Your task to perform on an android device: install app "Facebook Lite" Image 0: 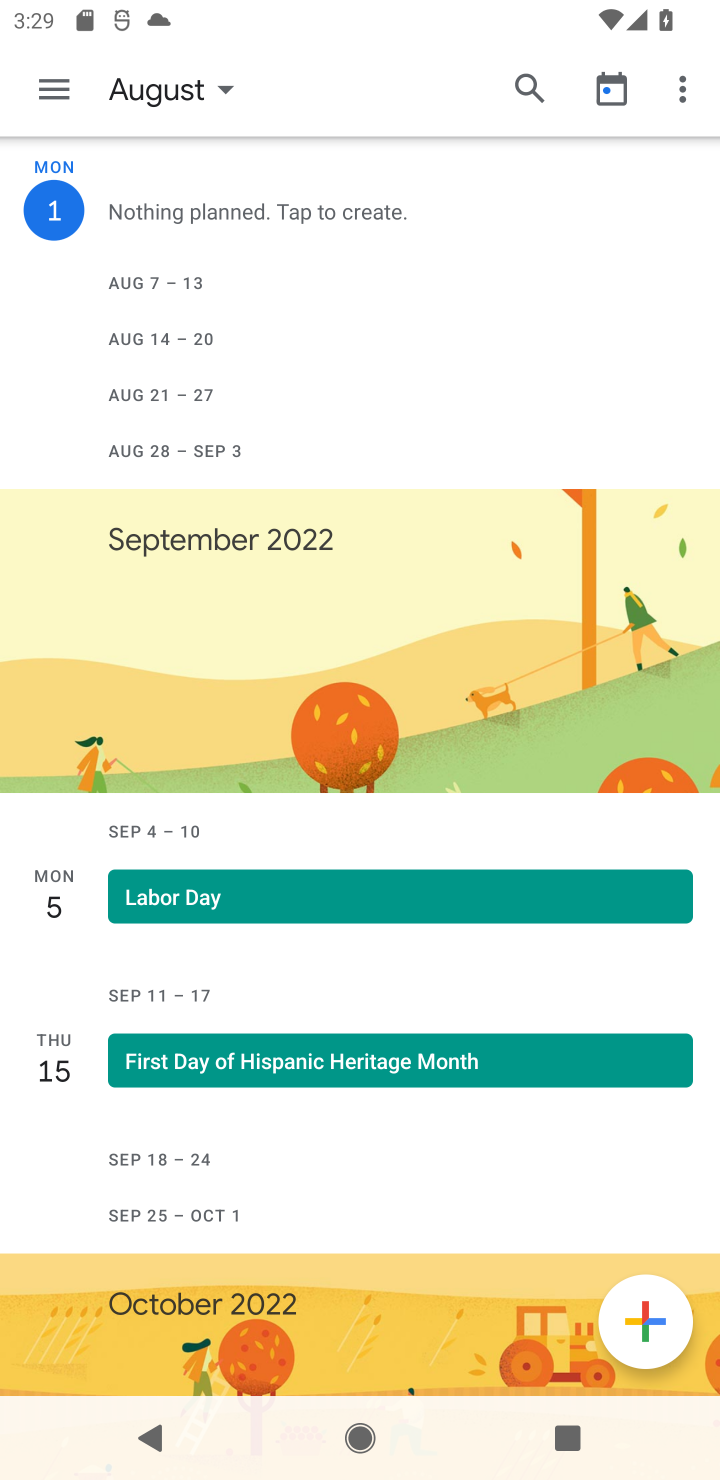
Step 0: press home button
Your task to perform on an android device: install app "Facebook Lite" Image 1: 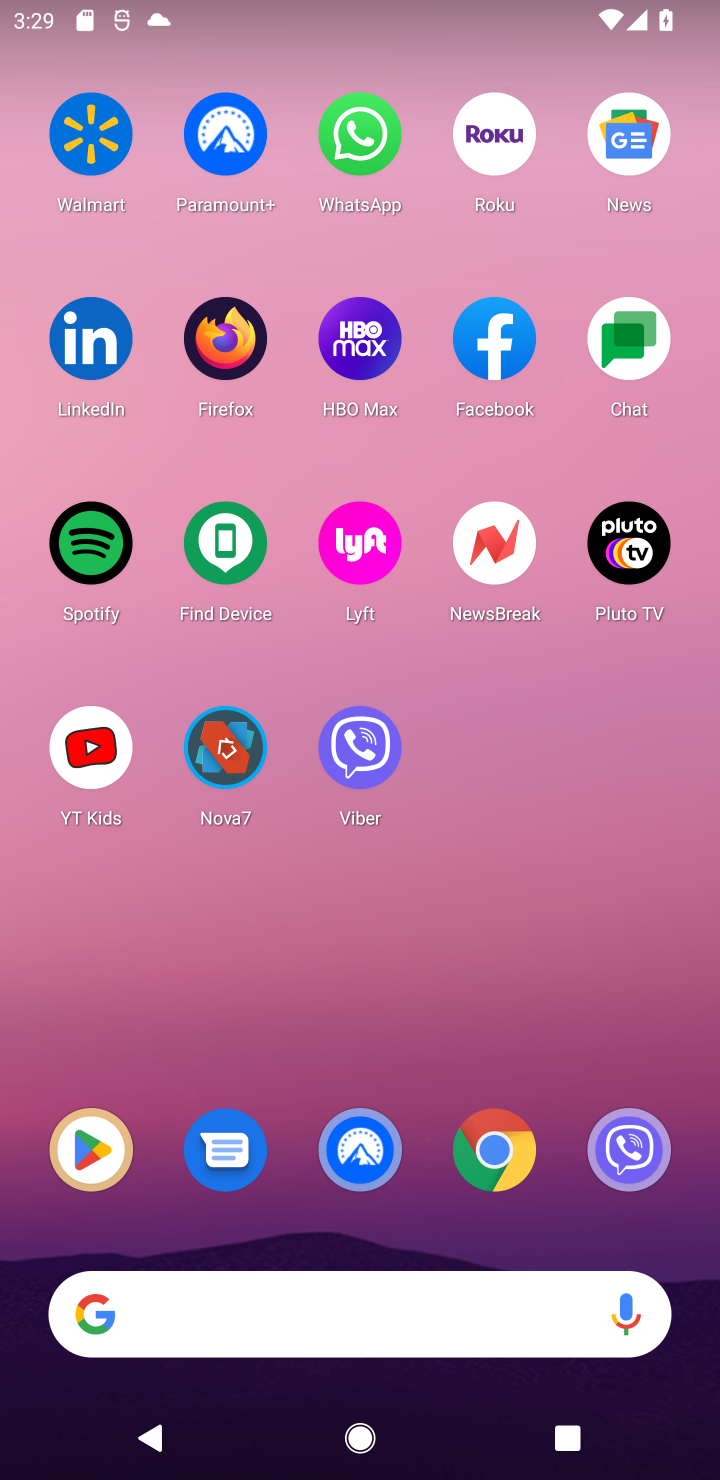
Step 1: click (97, 1158)
Your task to perform on an android device: install app "Facebook Lite" Image 2: 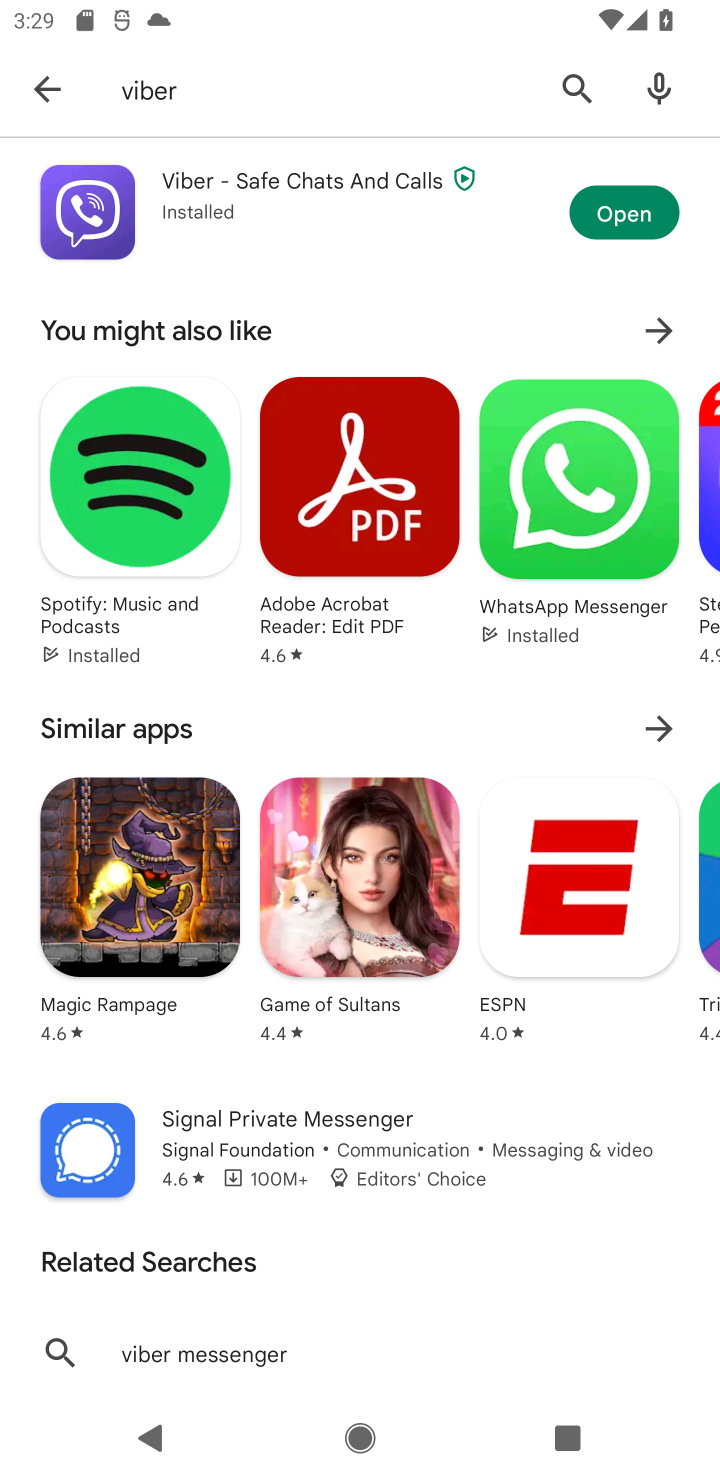
Step 2: click (563, 99)
Your task to perform on an android device: install app "Facebook Lite" Image 3: 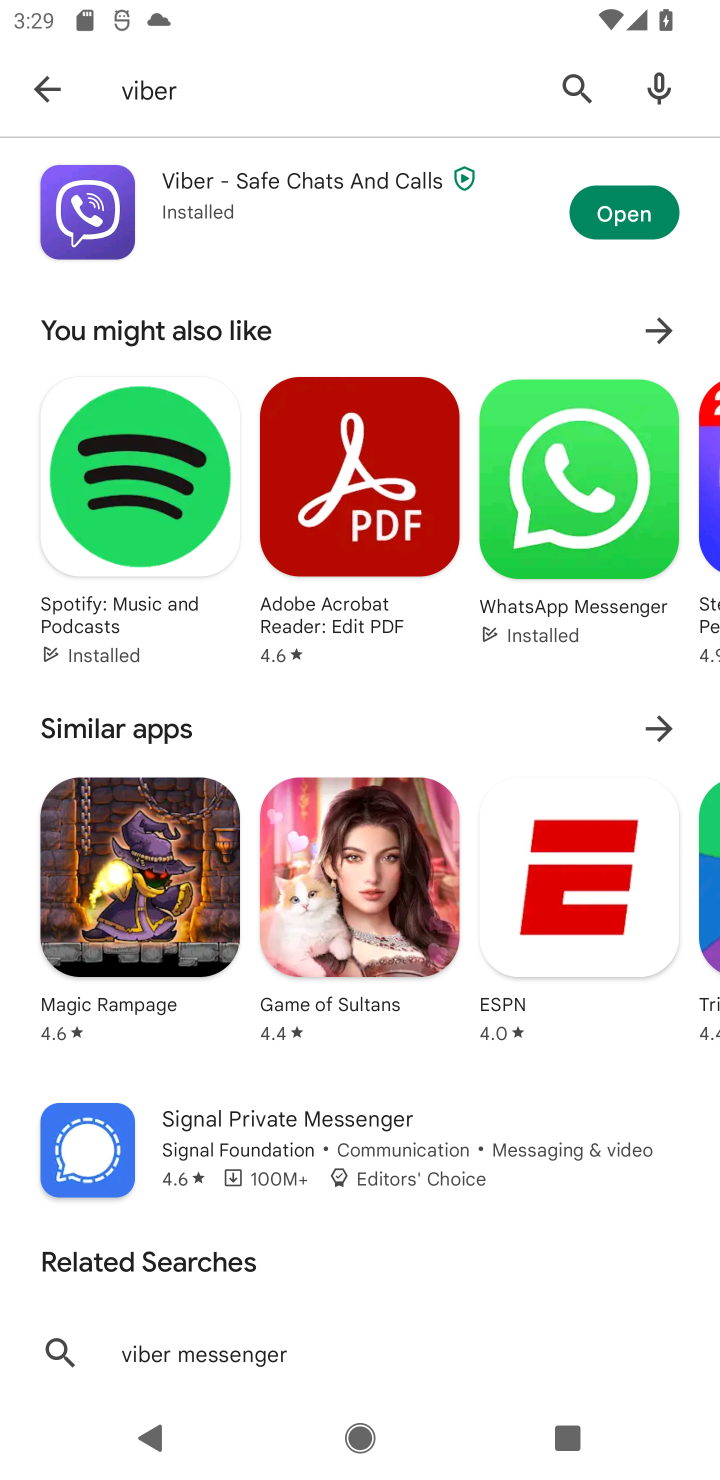
Step 3: click (563, 99)
Your task to perform on an android device: install app "Facebook Lite" Image 4: 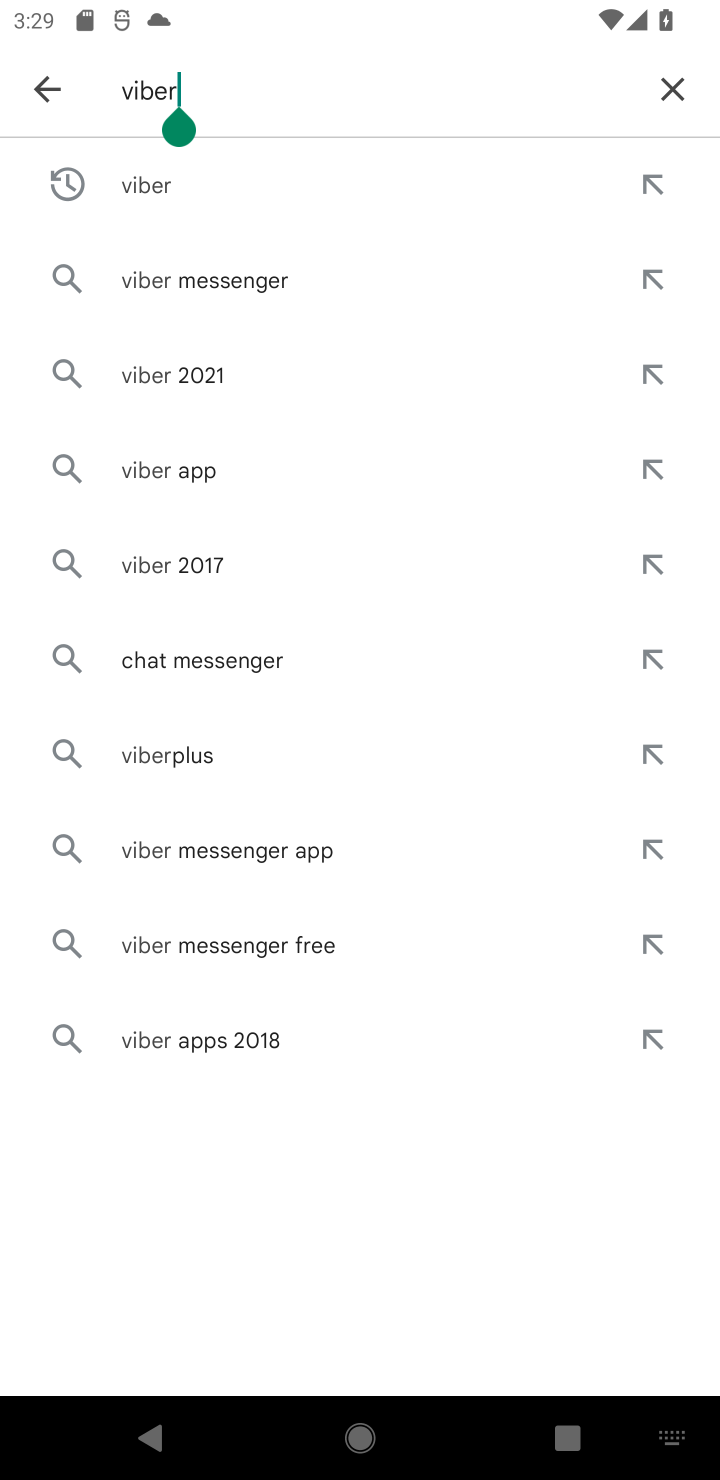
Step 4: click (658, 90)
Your task to perform on an android device: install app "Facebook Lite" Image 5: 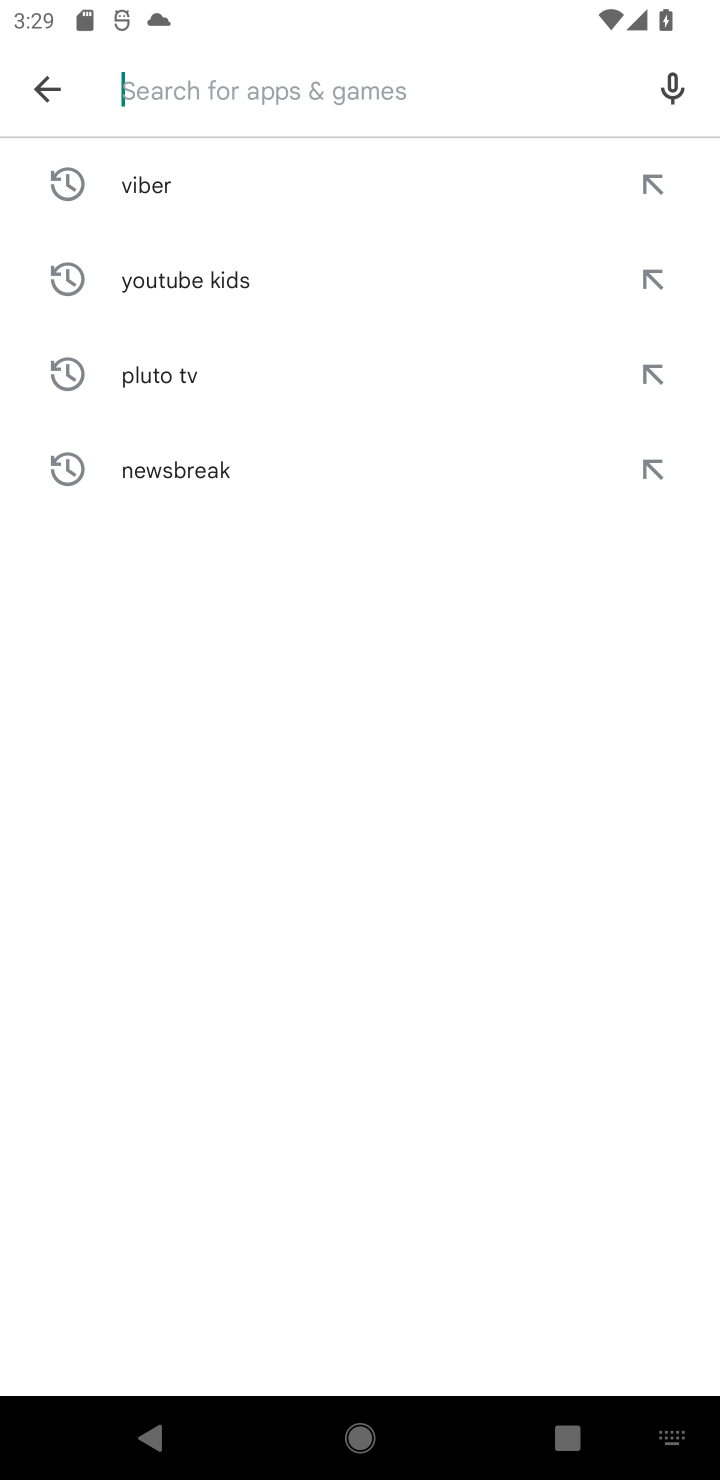
Step 5: type "facebook lite"
Your task to perform on an android device: install app "Facebook Lite" Image 6: 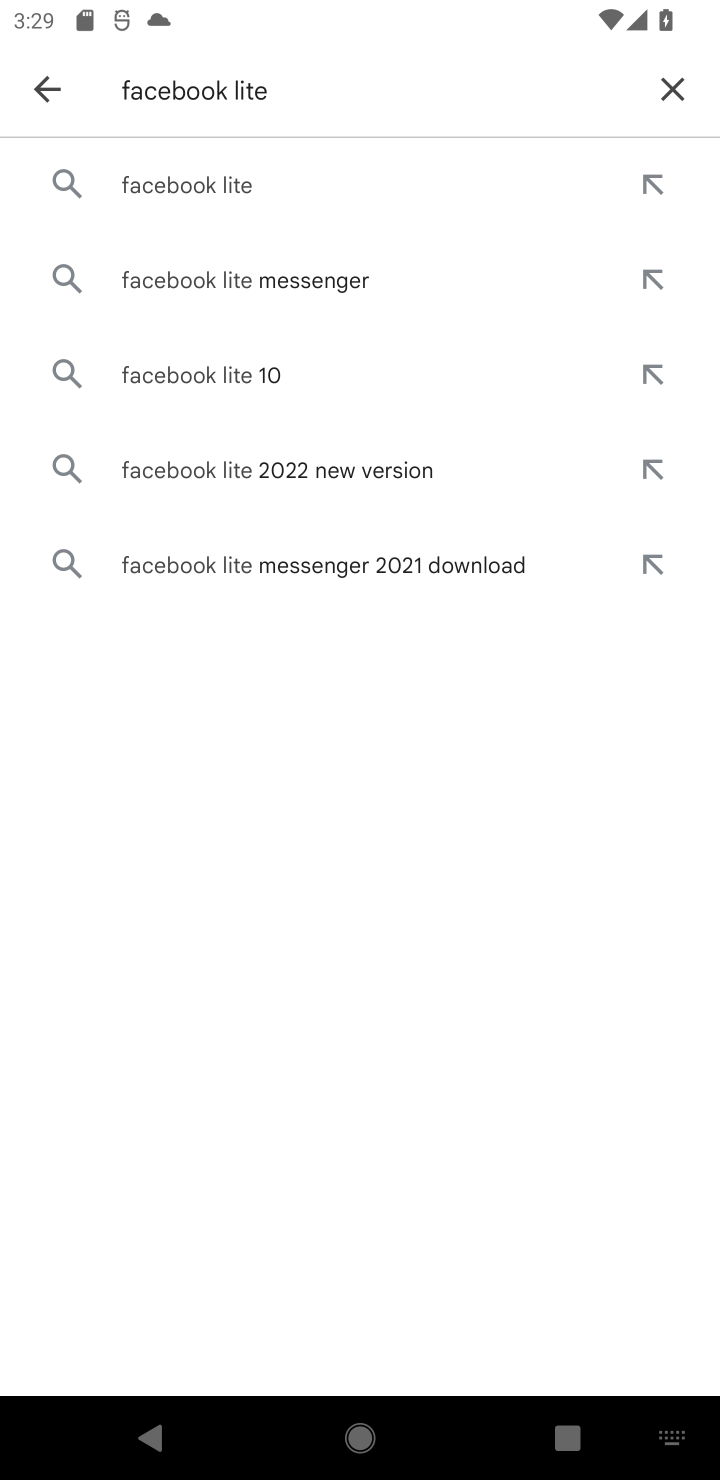
Step 6: click (365, 200)
Your task to perform on an android device: install app "Facebook Lite" Image 7: 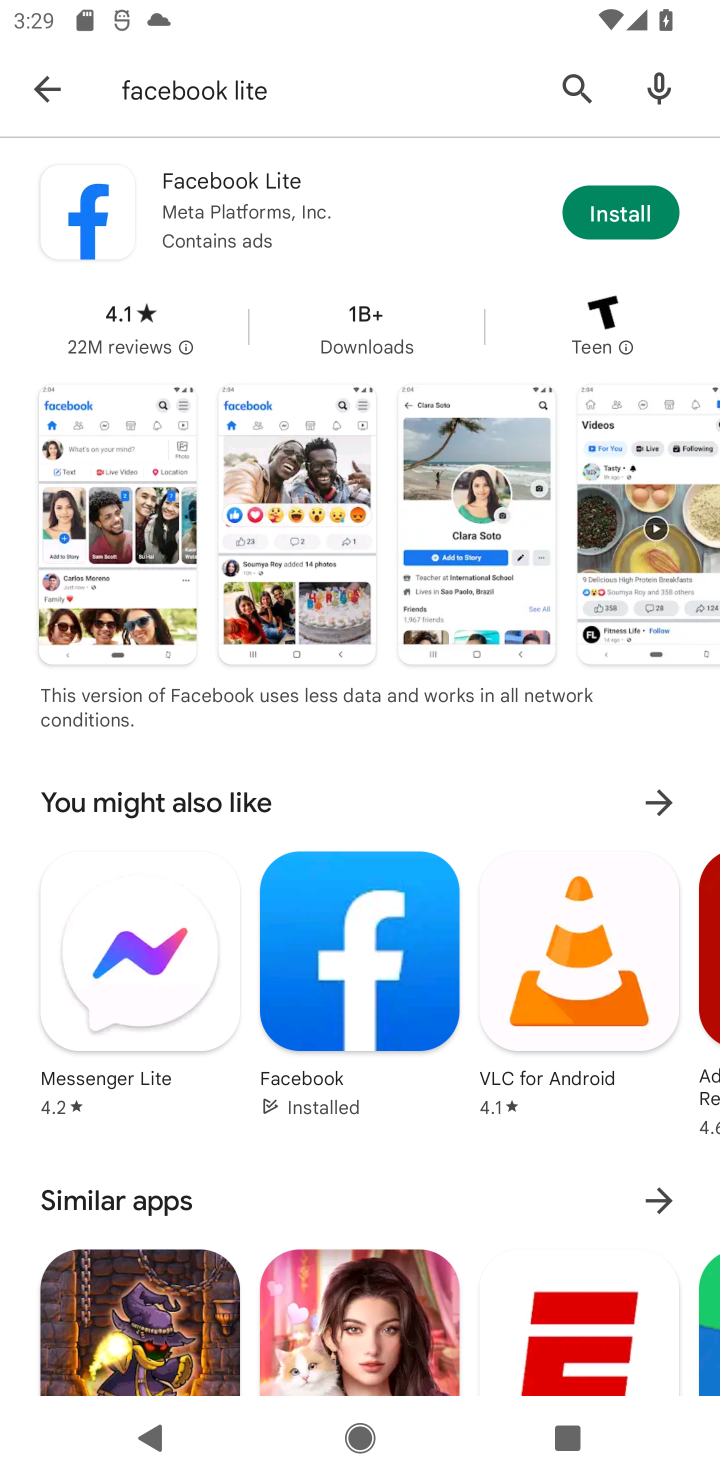
Step 7: click (658, 188)
Your task to perform on an android device: install app "Facebook Lite" Image 8: 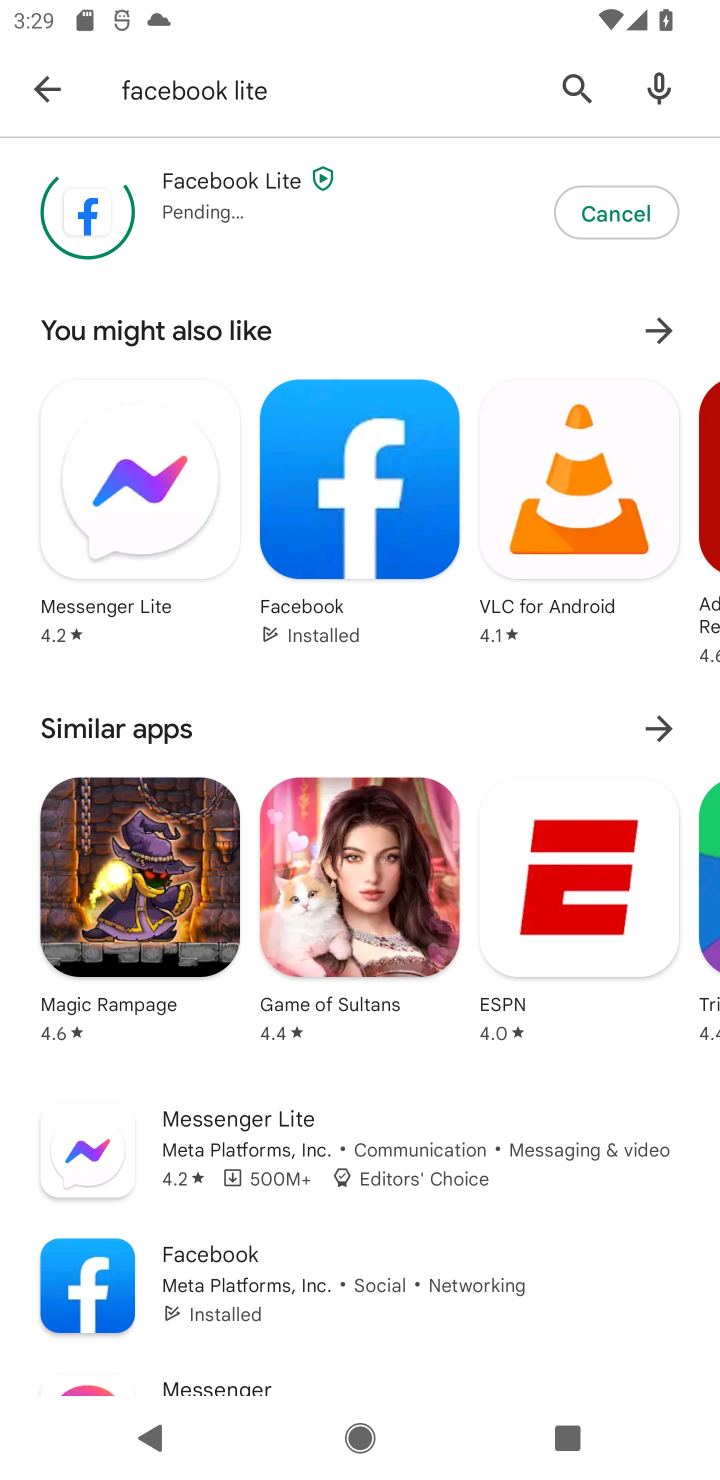
Step 8: task complete